Your task to perform on an android device: Show me popular games on the Play Store Image 0: 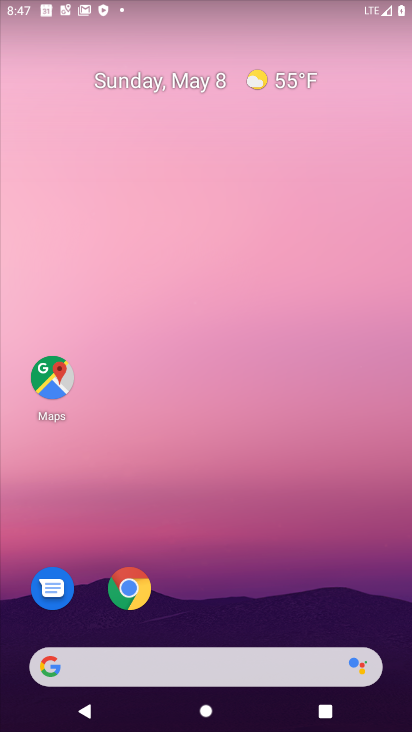
Step 0: drag from (322, 616) to (183, 29)
Your task to perform on an android device: Show me popular games on the Play Store Image 1: 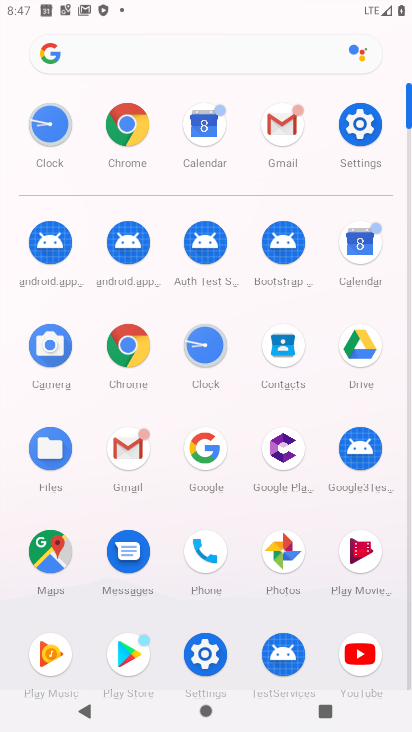
Step 1: click (128, 654)
Your task to perform on an android device: Show me popular games on the Play Store Image 2: 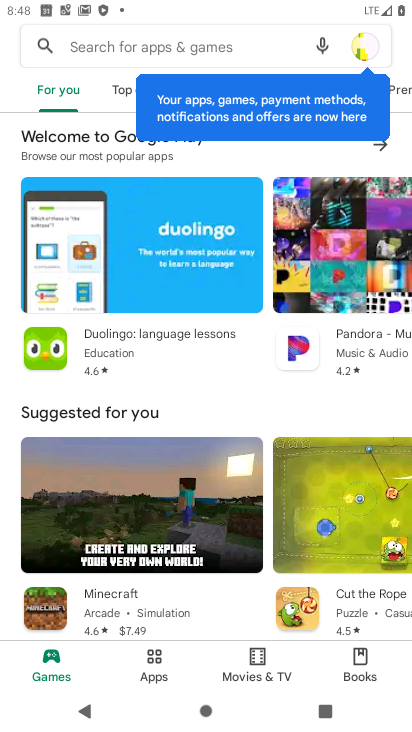
Step 2: task complete